Your task to perform on an android device: open a new tab in the chrome app Image 0: 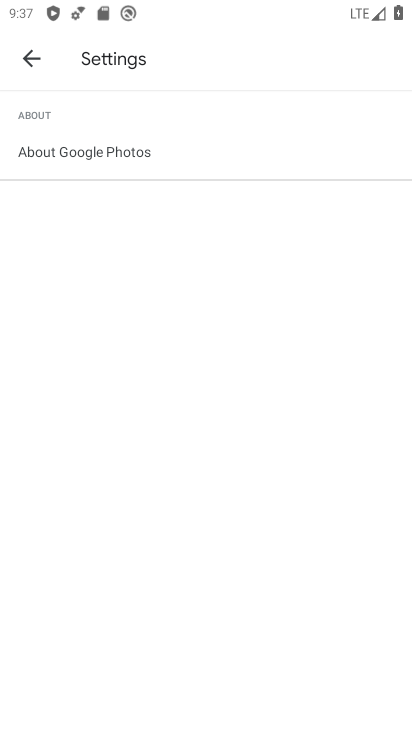
Step 0: press home button
Your task to perform on an android device: open a new tab in the chrome app Image 1: 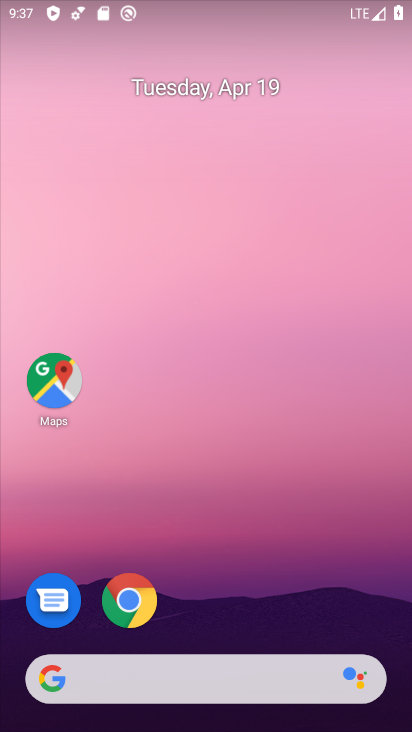
Step 1: drag from (346, 602) to (309, 233)
Your task to perform on an android device: open a new tab in the chrome app Image 2: 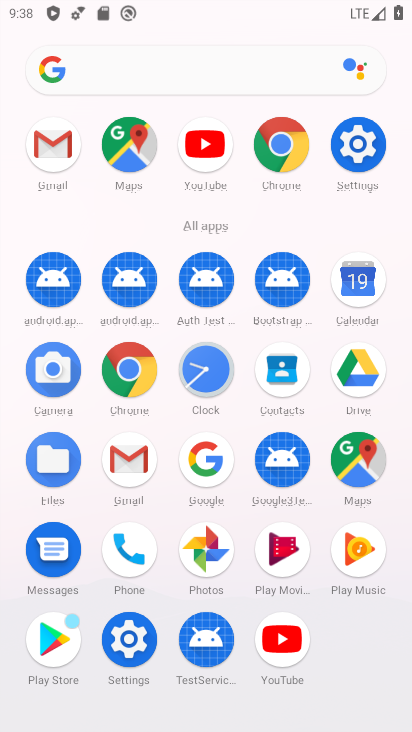
Step 2: click (281, 135)
Your task to perform on an android device: open a new tab in the chrome app Image 3: 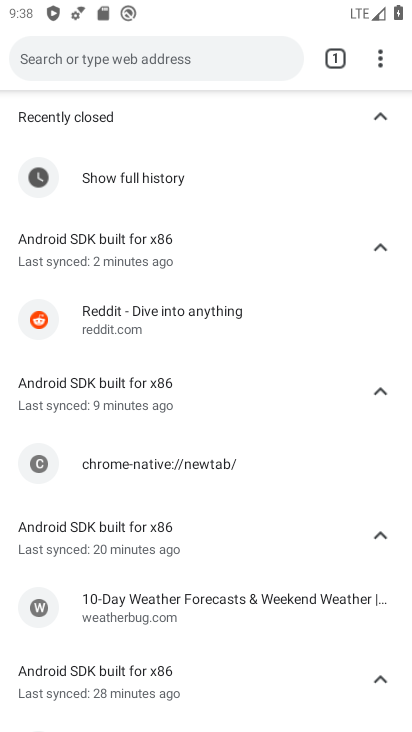
Step 3: click (390, 74)
Your task to perform on an android device: open a new tab in the chrome app Image 4: 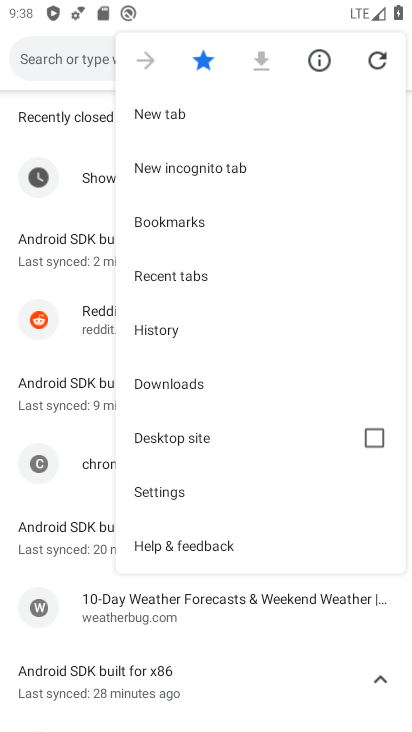
Step 4: click (217, 115)
Your task to perform on an android device: open a new tab in the chrome app Image 5: 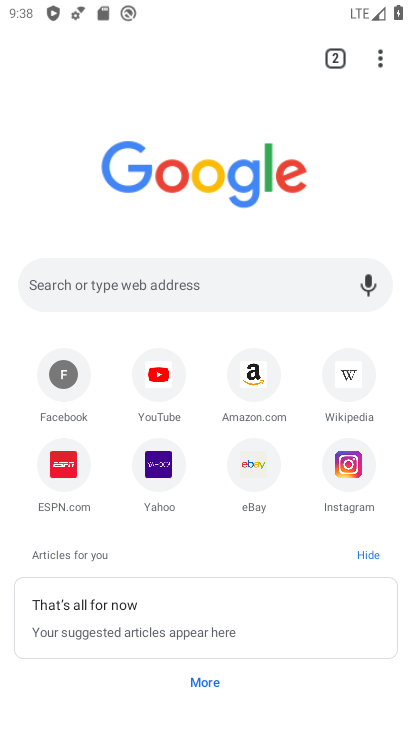
Step 5: task complete